Your task to perform on an android device: Open Chrome and go to settings Image 0: 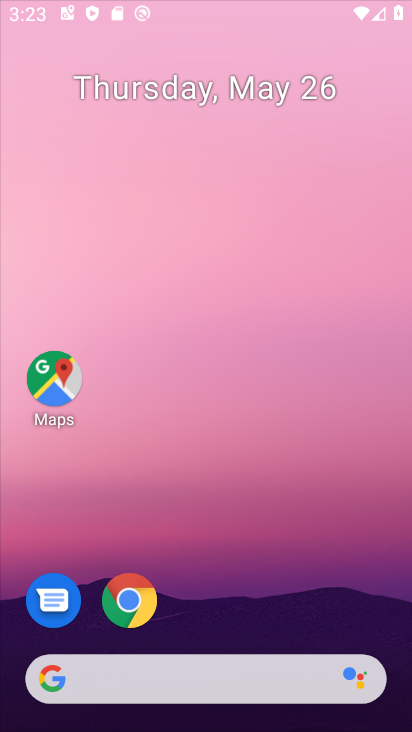
Step 0: click (207, 38)
Your task to perform on an android device: Open Chrome and go to settings Image 1: 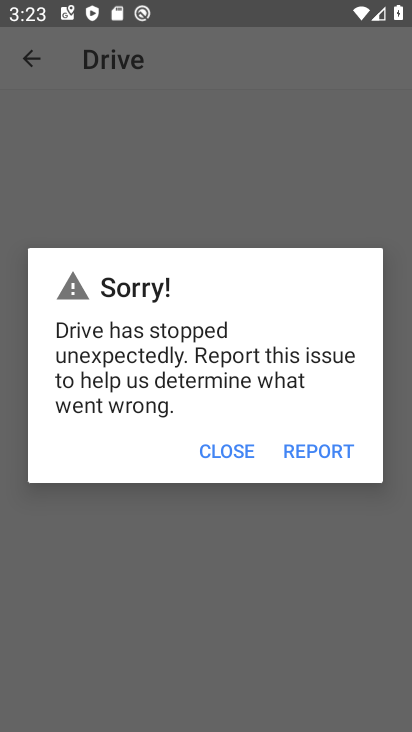
Step 1: press back button
Your task to perform on an android device: Open Chrome and go to settings Image 2: 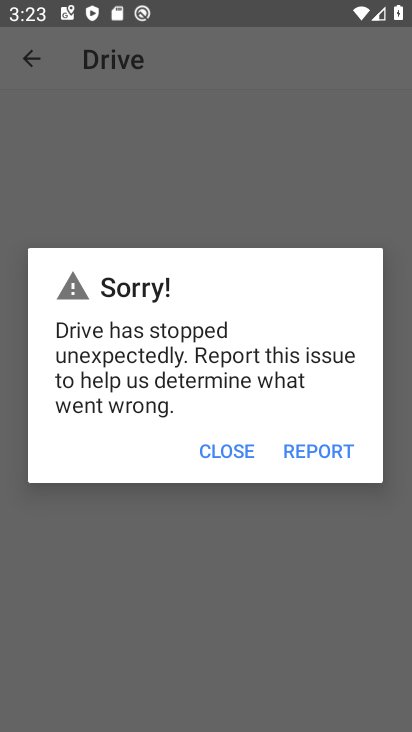
Step 2: press home button
Your task to perform on an android device: Open Chrome and go to settings Image 3: 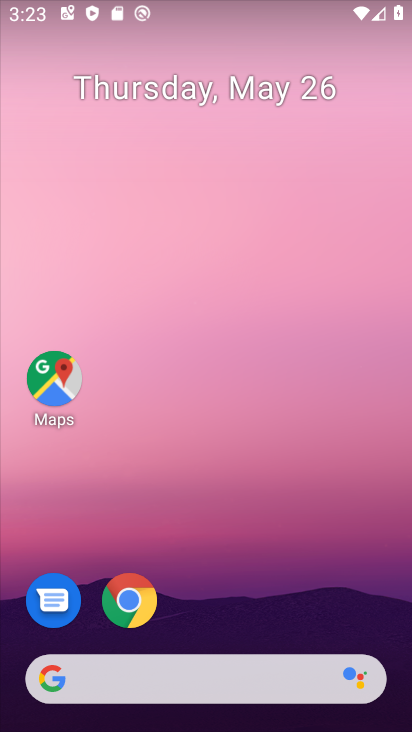
Step 3: drag from (284, 541) to (254, 17)
Your task to perform on an android device: Open Chrome and go to settings Image 4: 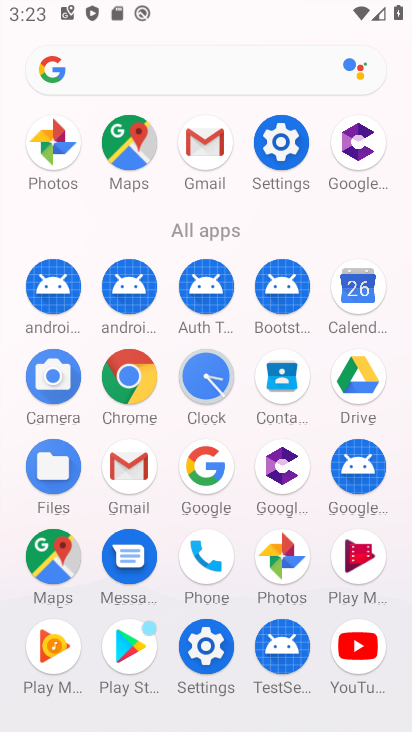
Step 4: click (128, 371)
Your task to perform on an android device: Open Chrome and go to settings Image 5: 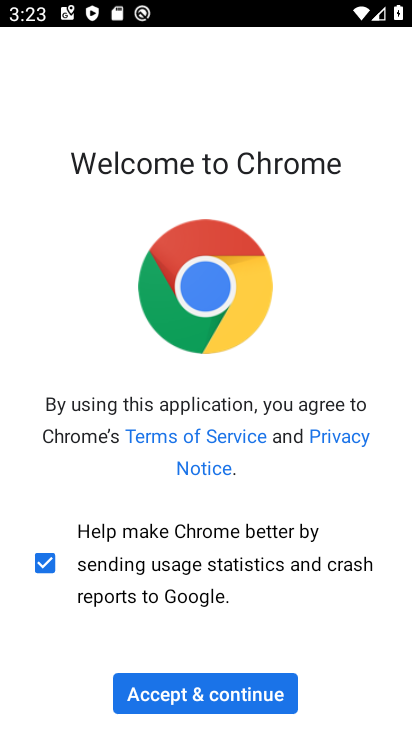
Step 5: click (194, 688)
Your task to perform on an android device: Open Chrome and go to settings Image 6: 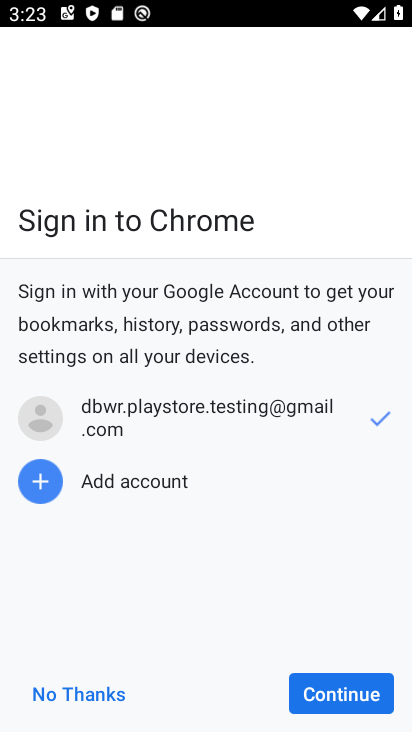
Step 6: click (352, 703)
Your task to perform on an android device: Open Chrome and go to settings Image 7: 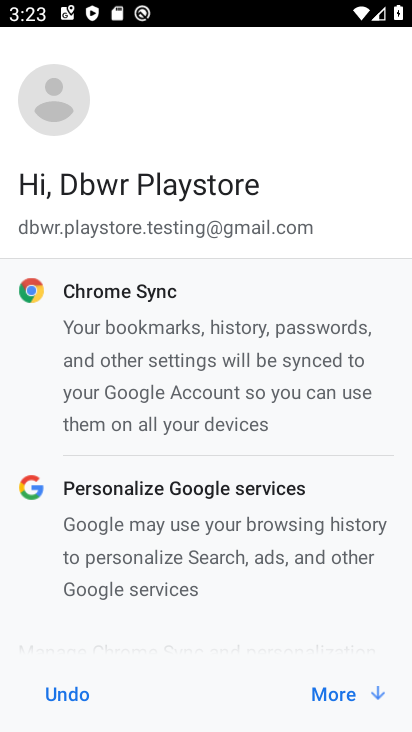
Step 7: click (337, 695)
Your task to perform on an android device: Open Chrome and go to settings Image 8: 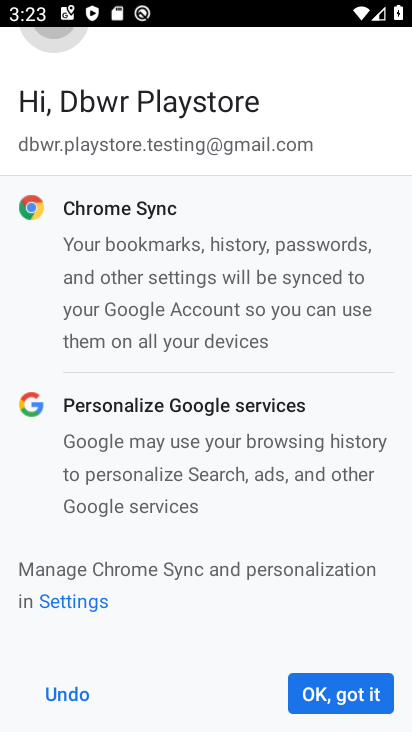
Step 8: click (336, 695)
Your task to perform on an android device: Open Chrome and go to settings Image 9: 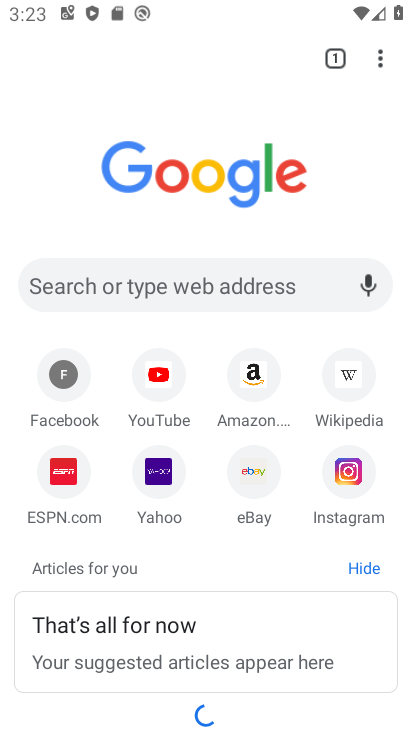
Step 9: task complete